Your task to perform on an android device: Open accessibility settings Image 0: 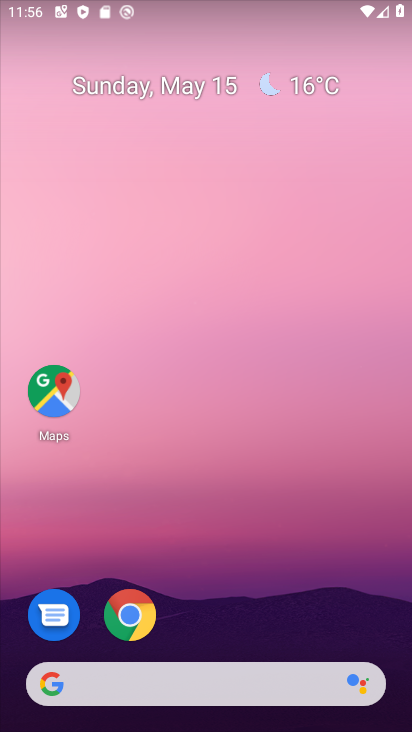
Step 0: drag from (232, 686) to (283, 1)
Your task to perform on an android device: Open accessibility settings Image 1: 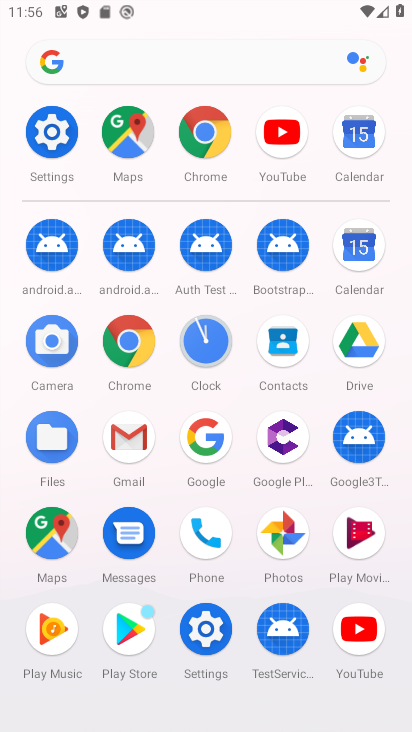
Step 1: click (204, 631)
Your task to perform on an android device: Open accessibility settings Image 2: 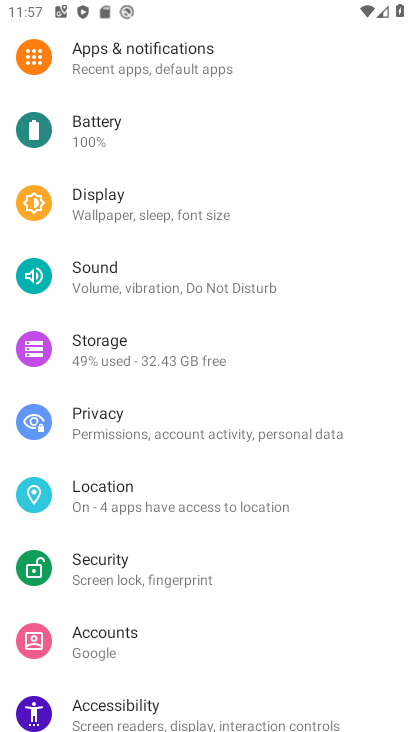
Step 2: click (139, 713)
Your task to perform on an android device: Open accessibility settings Image 3: 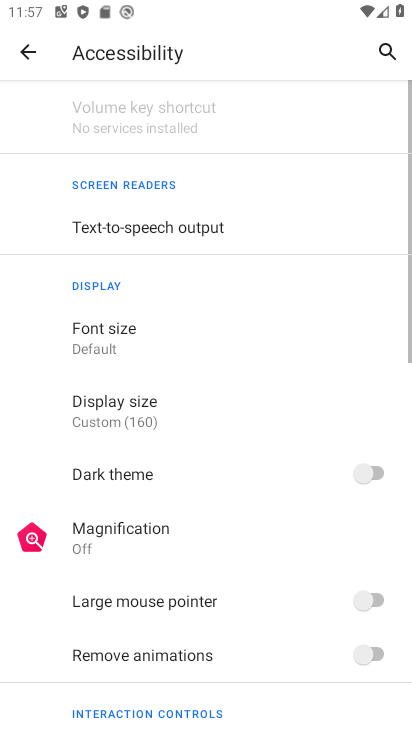
Step 3: task complete